Your task to perform on an android device: Open CNN.com Image 0: 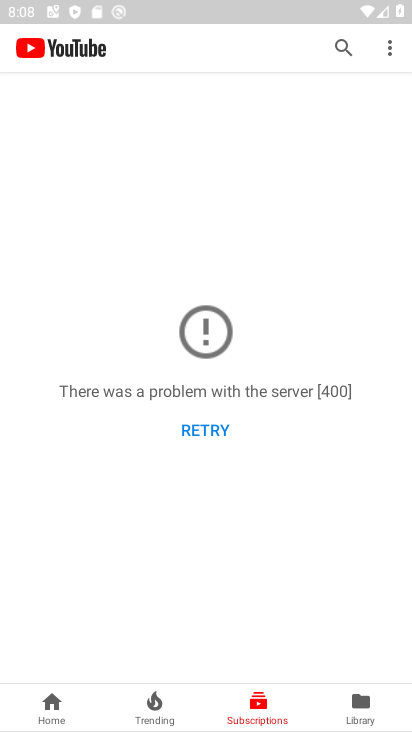
Step 0: press home button
Your task to perform on an android device: Open CNN.com Image 1: 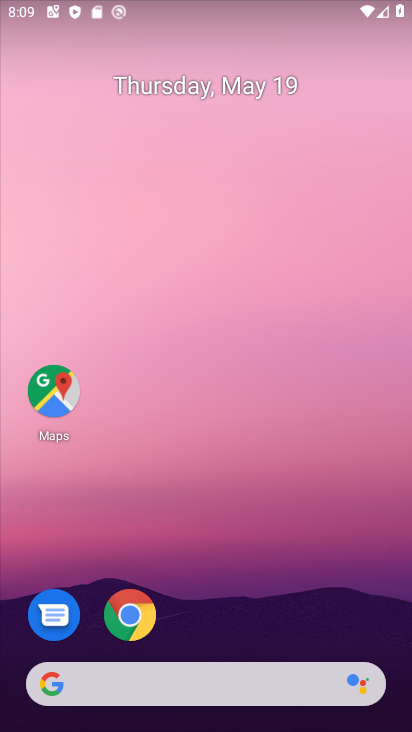
Step 1: click (147, 612)
Your task to perform on an android device: Open CNN.com Image 2: 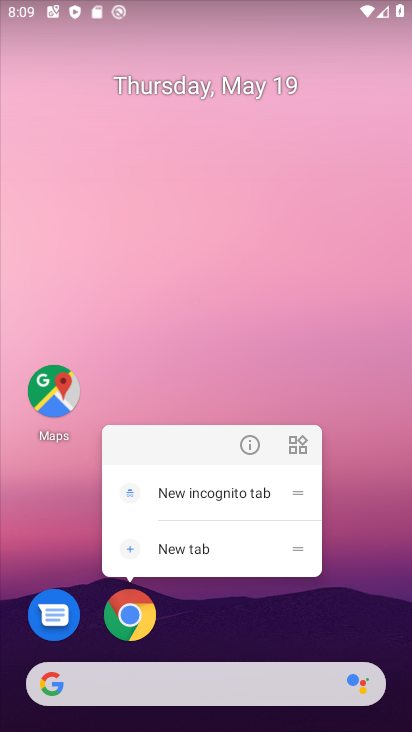
Step 2: click (132, 626)
Your task to perform on an android device: Open CNN.com Image 3: 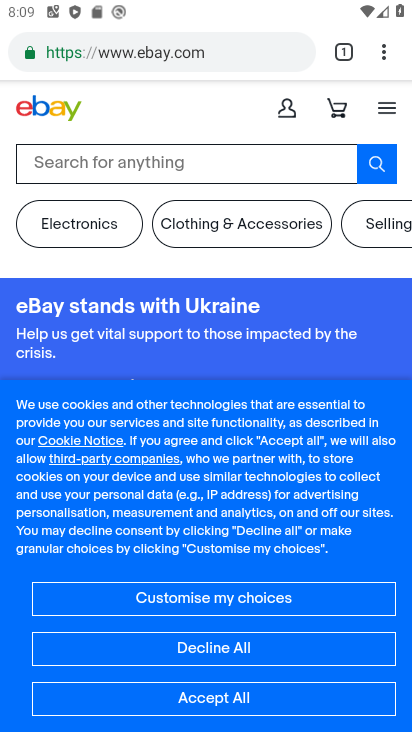
Step 3: click (236, 62)
Your task to perform on an android device: Open CNN.com Image 4: 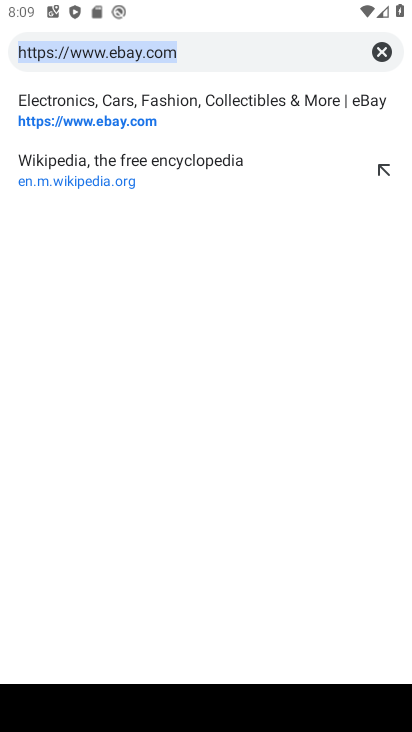
Step 4: type "cnn"
Your task to perform on an android device: Open CNN.com Image 5: 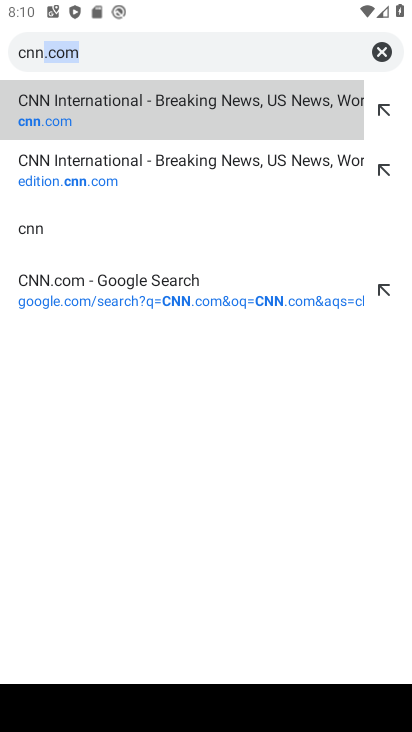
Step 5: click (203, 110)
Your task to perform on an android device: Open CNN.com Image 6: 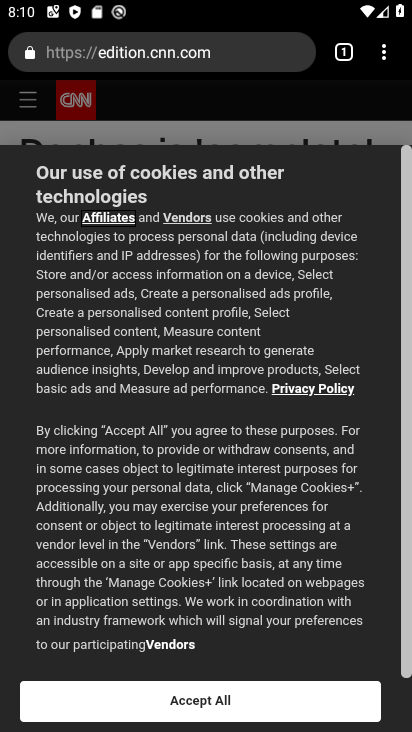
Step 6: task complete